Your task to perform on an android device: turn pop-ups off in chrome Image 0: 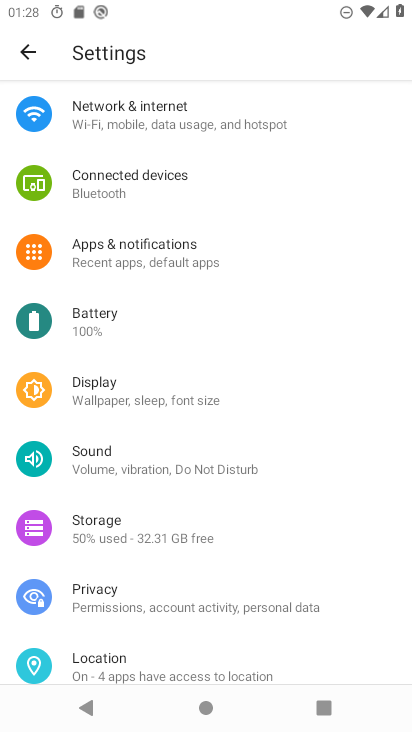
Step 0: press home button
Your task to perform on an android device: turn pop-ups off in chrome Image 1: 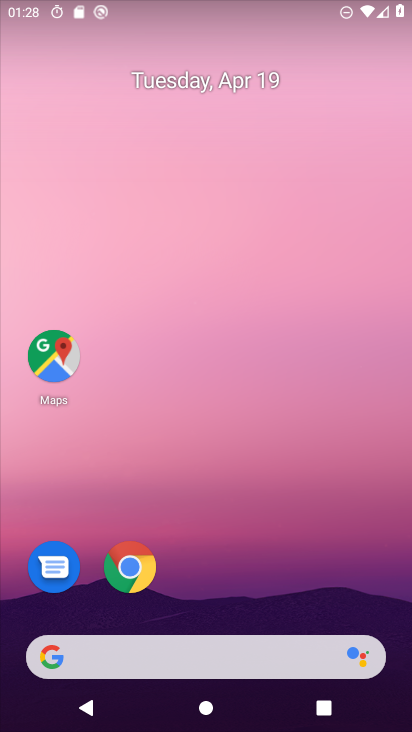
Step 1: drag from (231, 408) to (216, 51)
Your task to perform on an android device: turn pop-ups off in chrome Image 2: 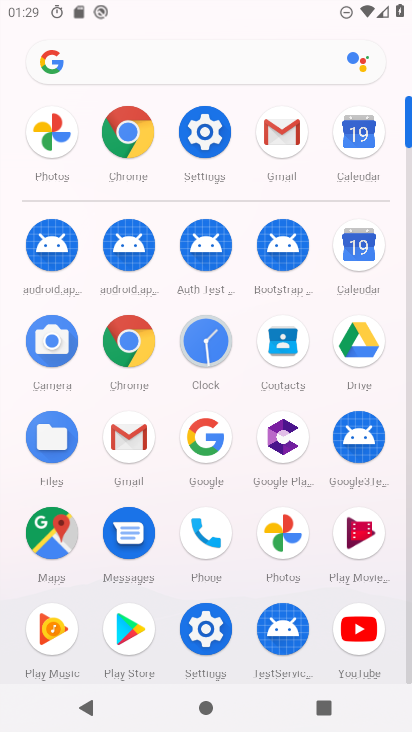
Step 2: click (135, 343)
Your task to perform on an android device: turn pop-ups off in chrome Image 3: 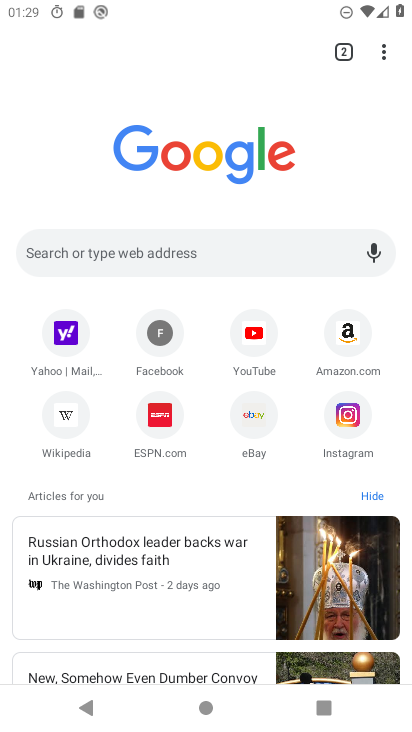
Step 3: drag from (382, 50) to (214, 439)
Your task to perform on an android device: turn pop-ups off in chrome Image 4: 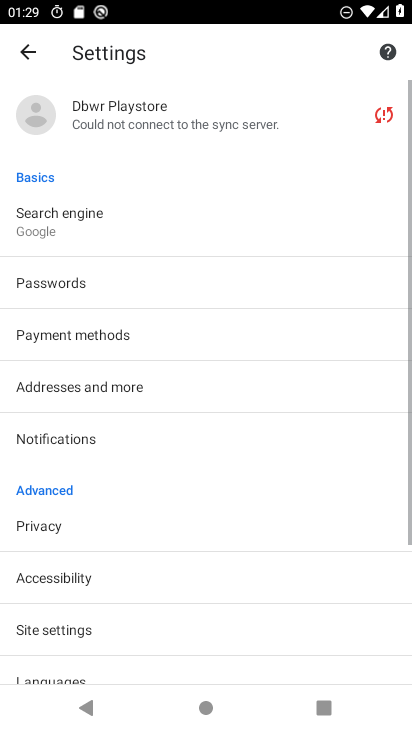
Step 4: drag from (204, 536) to (270, 92)
Your task to perform on an android device: turn pop-ups off in chrome Image 5: 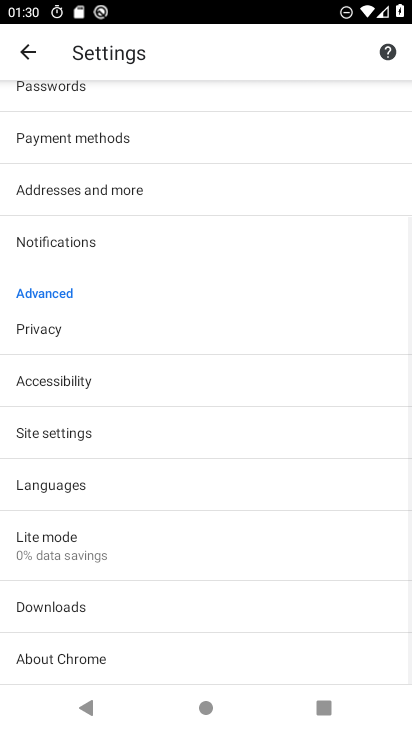
Step 5: click (61, 426)
Your task to perform on an android device: turn pop-ups off in chrome Image 6: 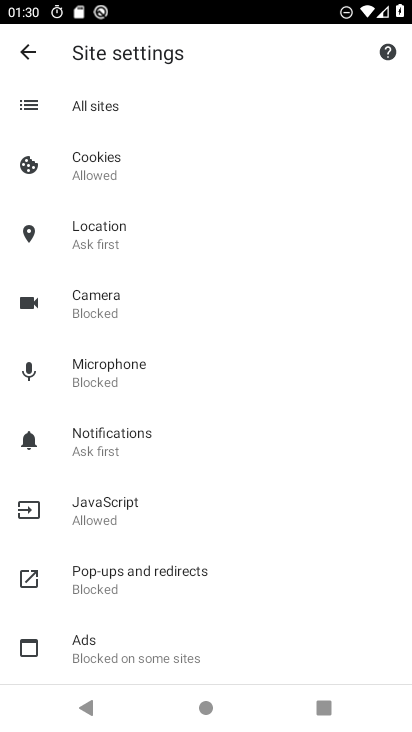
Step 6: click (170, 579)
Your task to perform on an android device: turn pop-ups off in chrome Image 7: 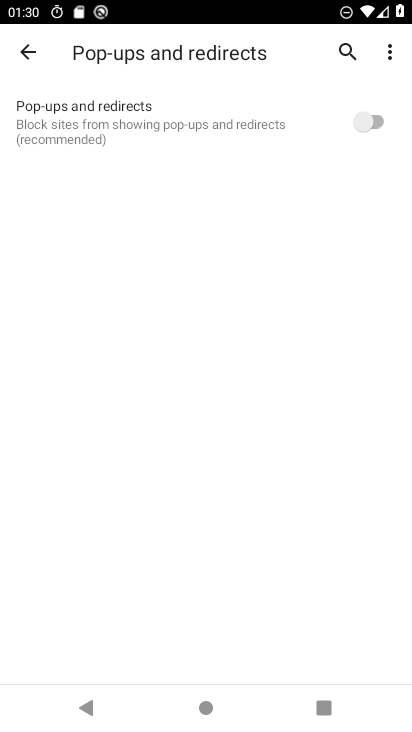
Step 7: task complete